Your task to perform on an android device: Add "razer huntsman" to the cart on amazon Image 0: 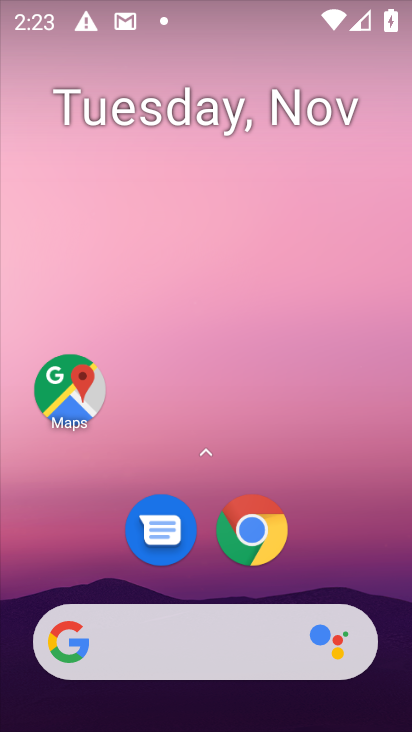
Step 0: drag from (196, 697) to (215, 137)
Your task to perform on an android device: Add "razer huntsman" to the cart on amazon Image 1: 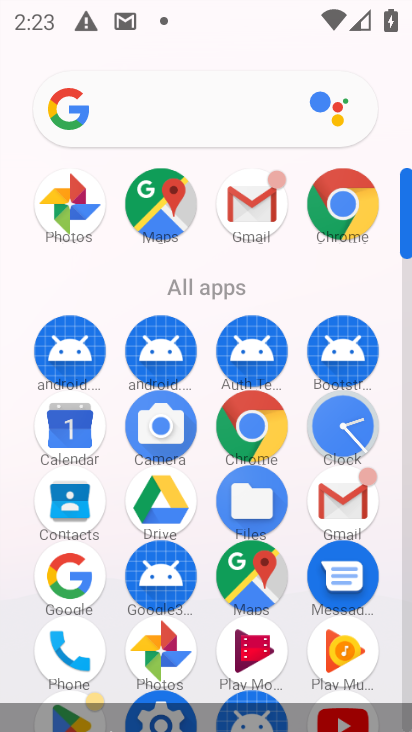
Step 1: click (239, 425)
Your task to perform on an android device: Add "razer huntsman" to the cart on amazon Image 2: 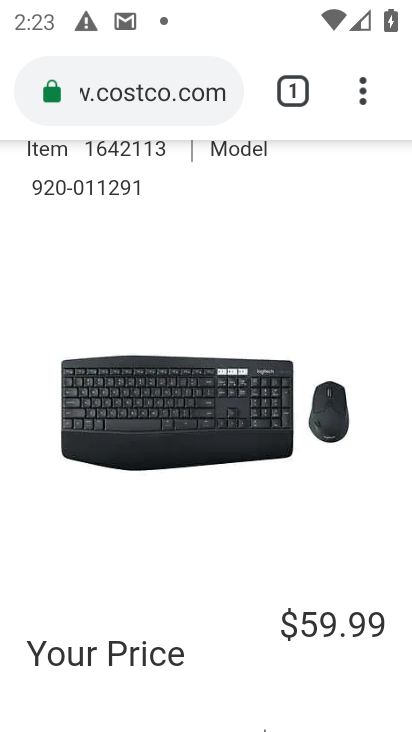
Step 2: click (153, 96)
Your task to perform on an android device: Add "razer huntsman" to the cart on amazon Image 3: 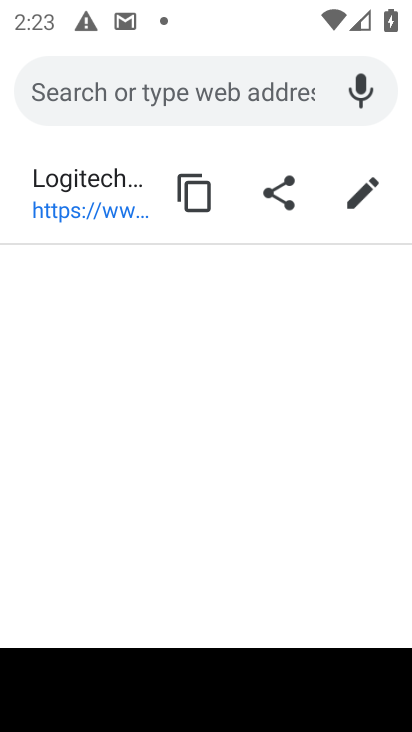
Step 3: type "amazon"
Your task to perform on an android device: Add "razer huntsman" to the cart on amazon Image 4: 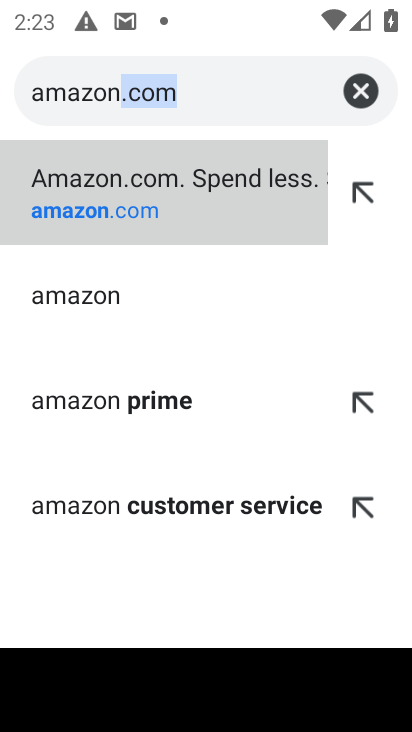
Step 4: click (93, 204)
Your task to perform on an android device: Add "razer huntsman" to the cart on amazon Image 5: 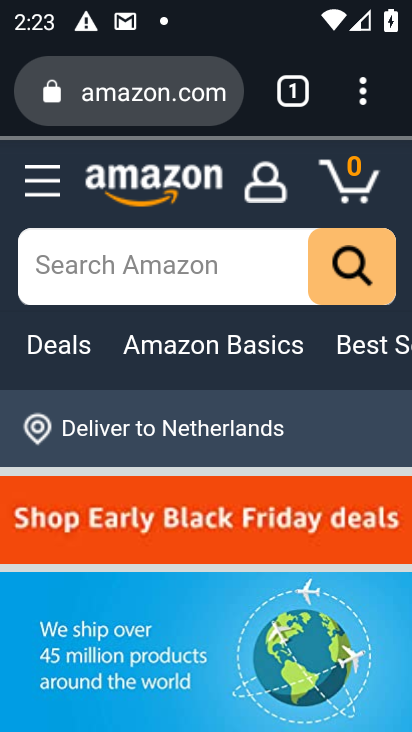
Step 5: click (139, 263)
Your task to perform on an android device: Add "razer huntsman" to the cart on amazon Image 6: 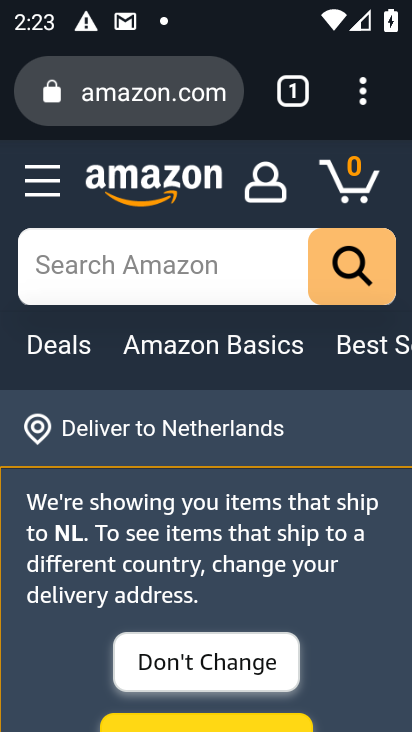
Step 6: click (149, 269)
Your task to perform on an android device: Add "razer huntsman" to the cart on amazon Image 7: 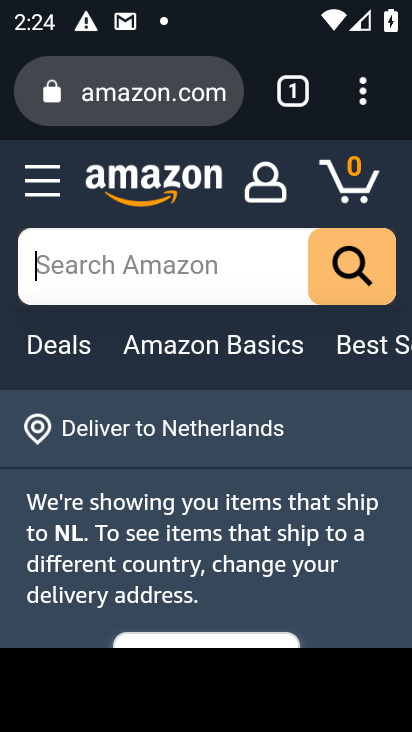
Step 7: type "razer huntsman"
Your task to perform on an android device: Add "razer huntsman" to the cart on amazon Image 8: 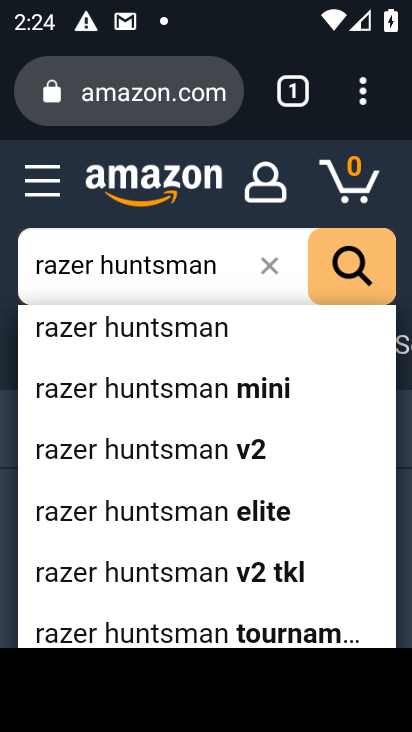
Step 8: click (190, 334)
Your task to perform on an android device: Add "razer huntsman" to the cart on amazon Image 9: 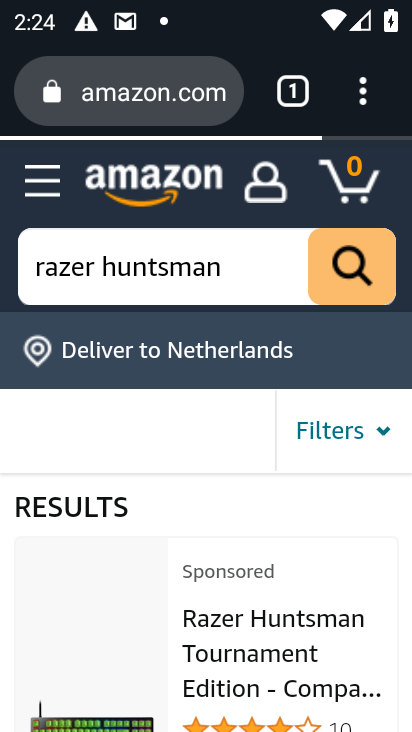
Step 9: drag from (161, 601) to (261, 124)
Your task to perform on an android device: Add "razer huntsman" to the cart on amazon Image 10: 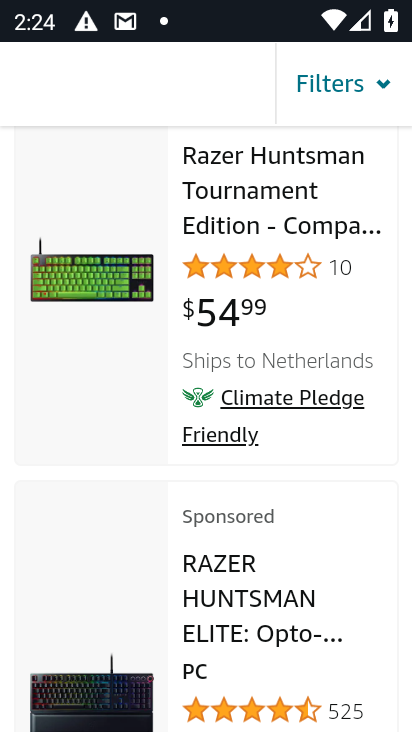
Step 10: click (148, 167)
Your task to perform on an android device: Add "razer huntsman" to the cart on amazon Image 11: 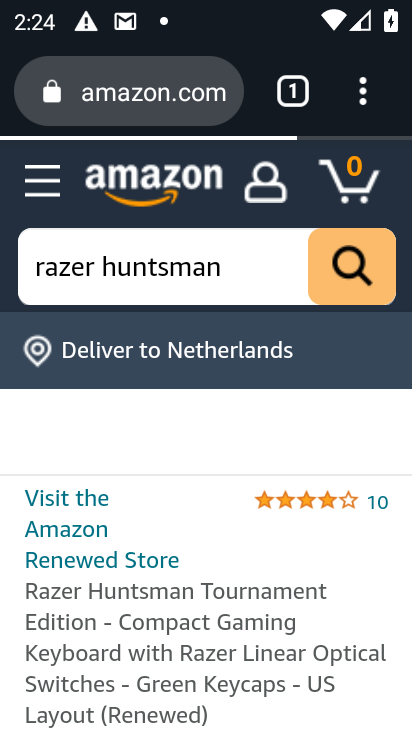
Step 11: drag from (228, 595) to (329, 109)
Your task to perform on an android device: Add "razer huntsman" to the cart on amazon Image 12: 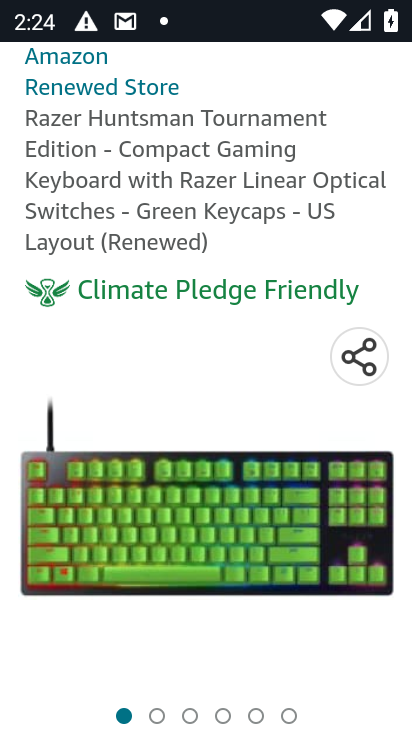
Step 12: drag from (177, 420) to (167, 145)
Your task to perform on an android device: Add "razer huntsman" to the cart on amazon Image 13: 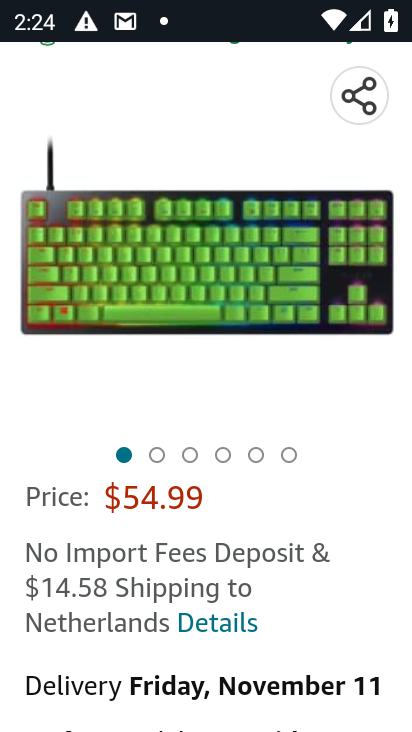
Step 13: drag from (225, 606) to (256, 243)
Your task to perform on an android device: Add "razer huntsman" to the cart on amazon Image 14: 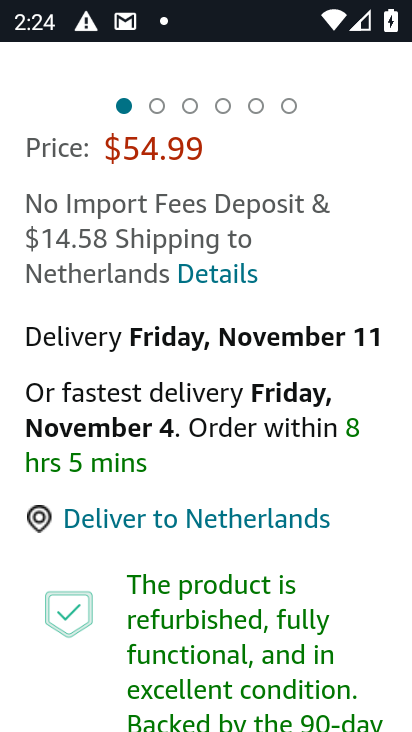
Step 14: drag from (235, 682) to (254, 170)
Your task to perform on an android device: Add "razer huntsman" to the cart on amazon Image 15: 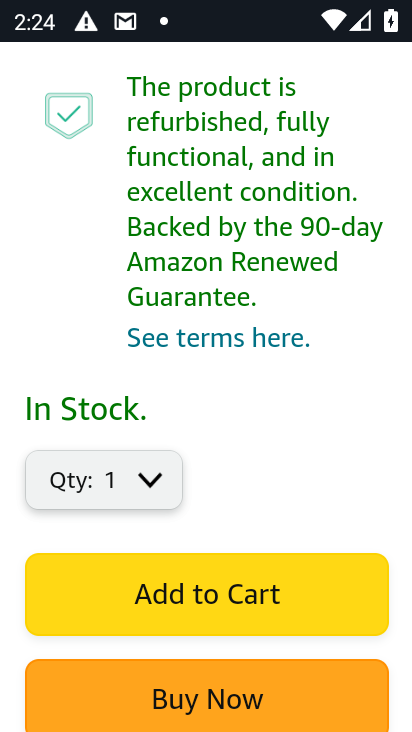
Step 15: click (170, 593)
Your task to perform on an android device: Add "razer huntsman" to the cart on amazon Image 16: 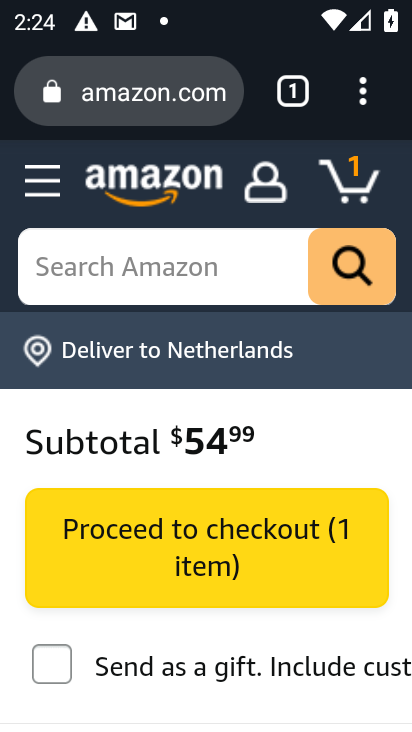
Step 16: task complete